Your task to perform on an android device: Open maps Image 0: 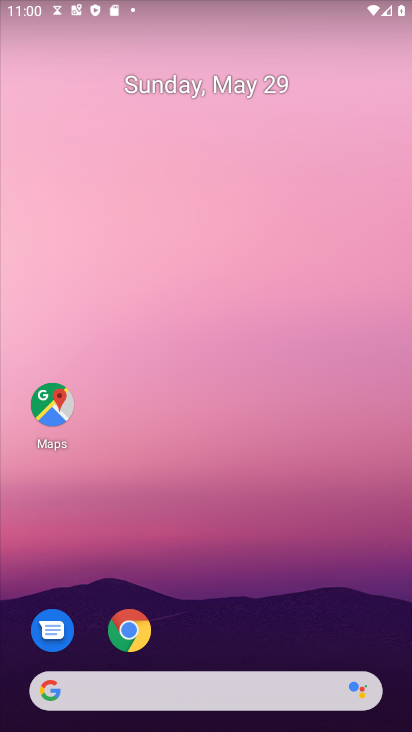
Step 0: click (38, 383)
Your task to perform on an android device: Open maps Image 1: 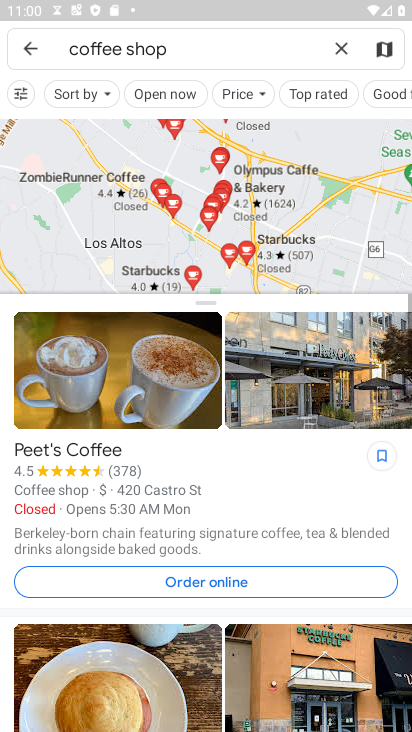
Step 1: task complete